Your task to perform on an android device: see sites visited before in the chrome app Image 0: 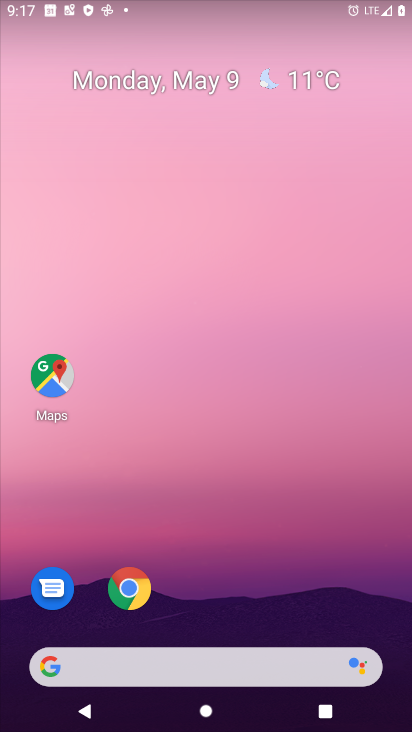
Step 0: drag from (334, 601) to (269, 139)
Your task to perform on an android device: see sites visited before in the chrome app Image 1: 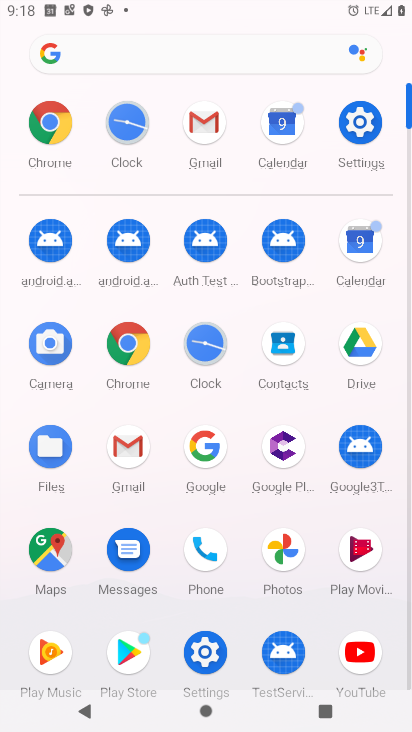
Step 1: click (130, 358)
Your task to perform on an android device: see sites visited before in the chrome app Image 2: 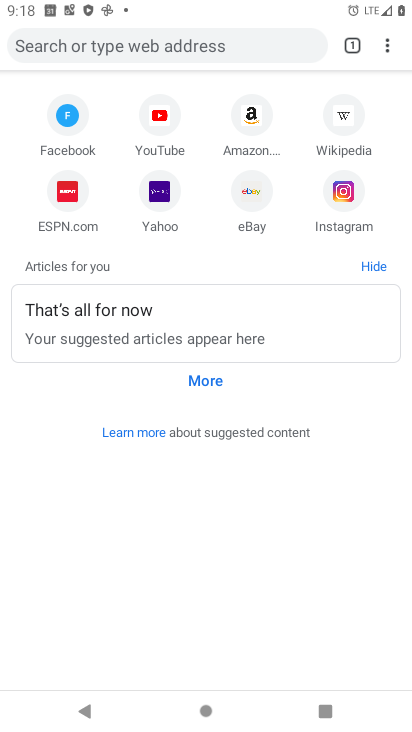
Step 2: click (388, 48)
Your task to perform on an android device: see sites visited before in the chrome app Image 3: 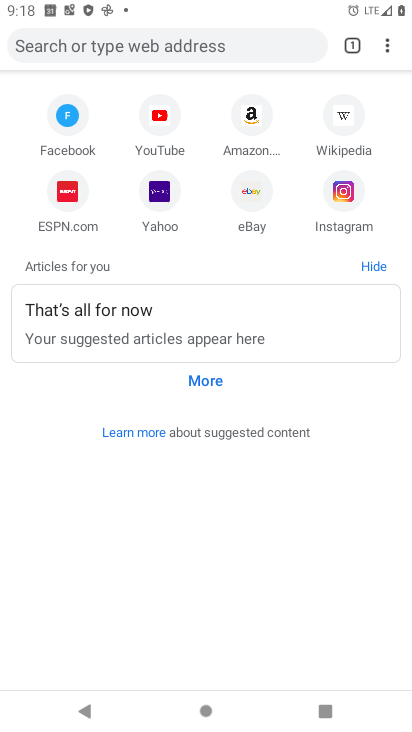
Step 3: click (390, 40)
Your task to perform on an android device: see sites visited before in the chrome app Image 4: 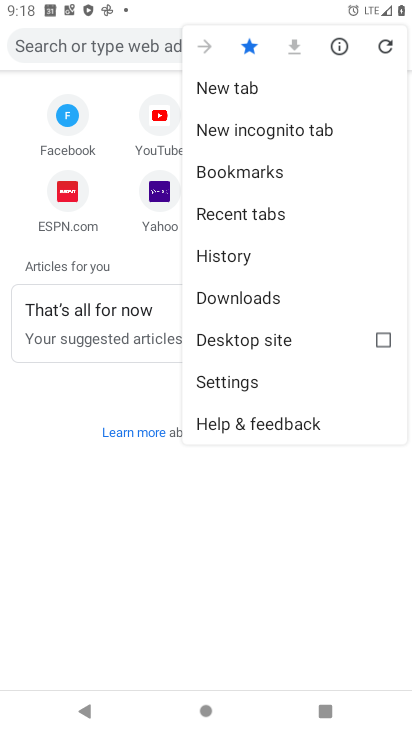
Step 4: click (247, 264)
Your task to perform on an android device: see sites visited before in the chrome app Image 5: 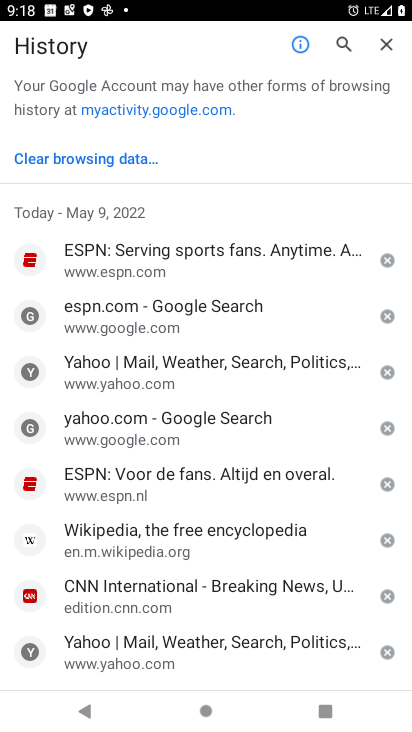
Step 5: click (157, 274)
Your task to perform on an android device: see sites visited before in the chrome app Image 6: 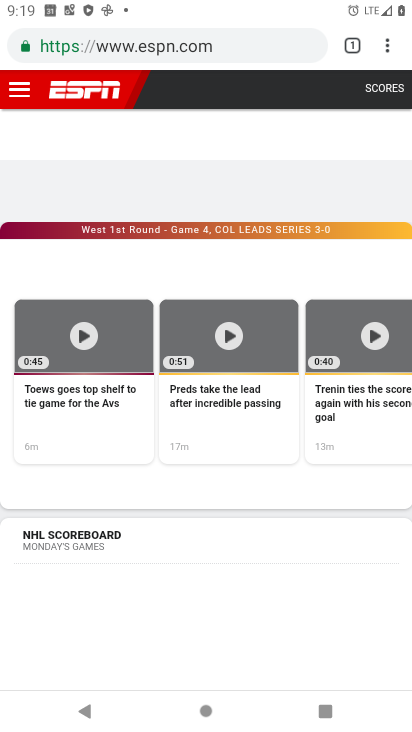
Step 6: task complete